Your task to perform on an android device: uninstall "Instagram" Image 0: 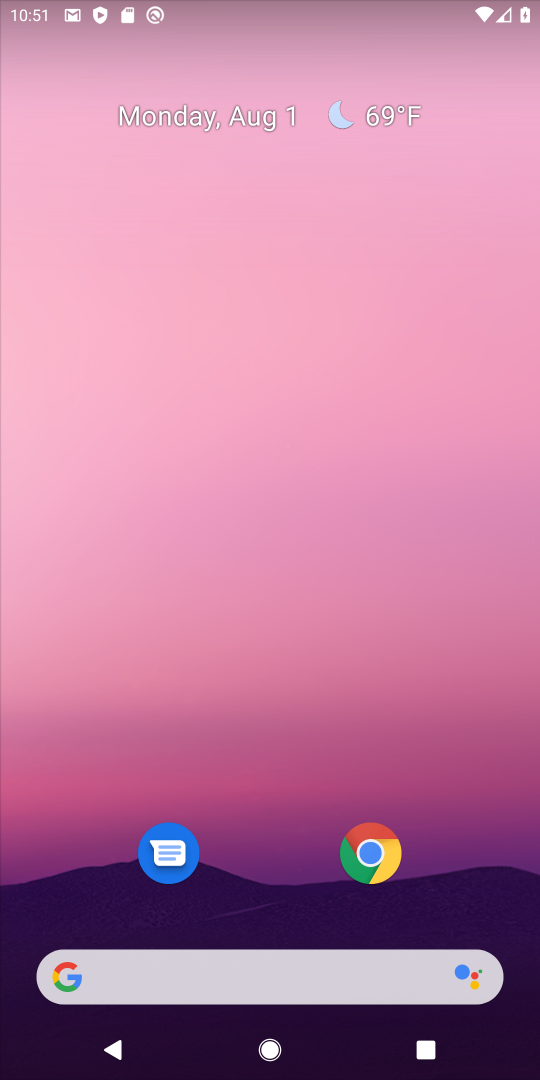
Step 0: press home button
Your task to perform on an android device: uninstall "Instagram" Image 1: 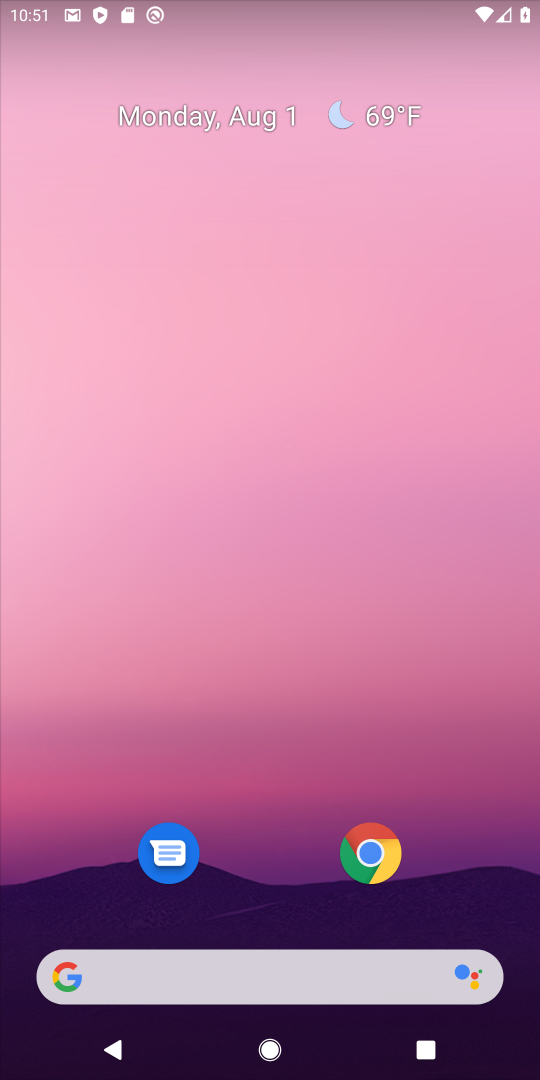
Step 1: drag from (219, 893) to (312, 40)
Your task to perform on an android device: uninstall "Instagram" Image 2: 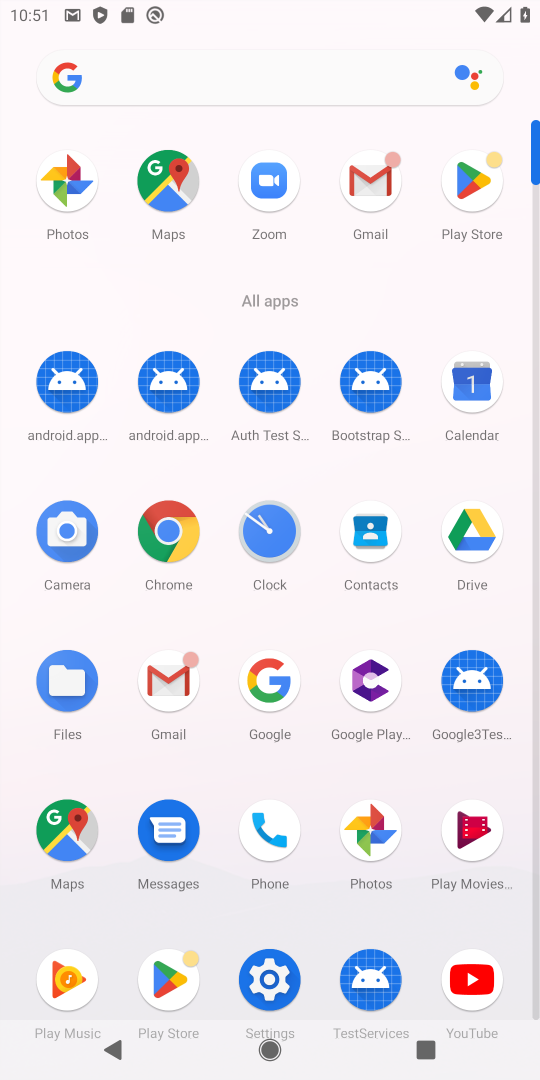
Step 2: click (172, 978)
Your task to perform on an android device: uninstall "Instagram" Image 3: 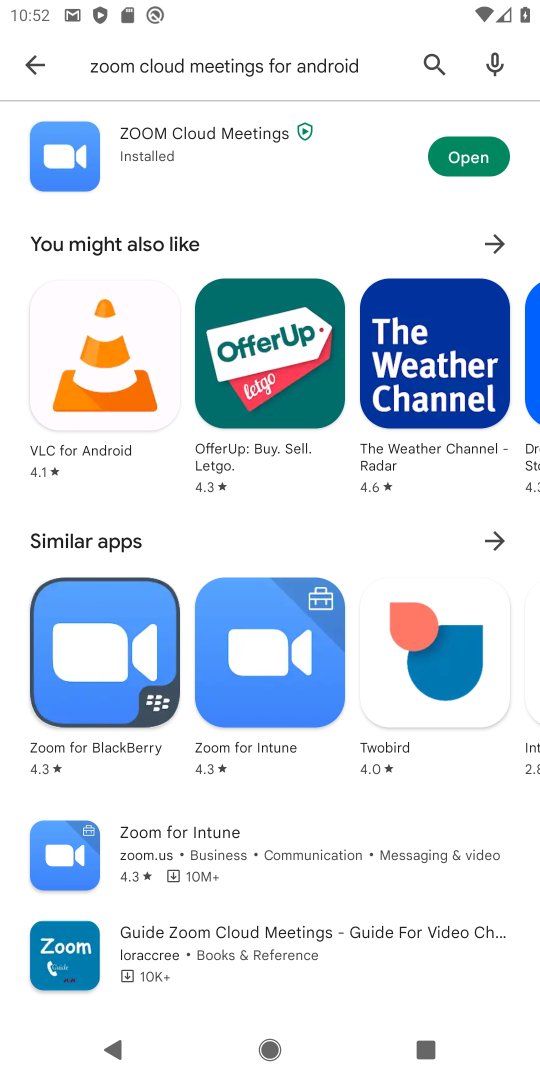
Step 3: click (447, 64)
Your task to perform on an android device: uninstall "Instagram" Image 4: 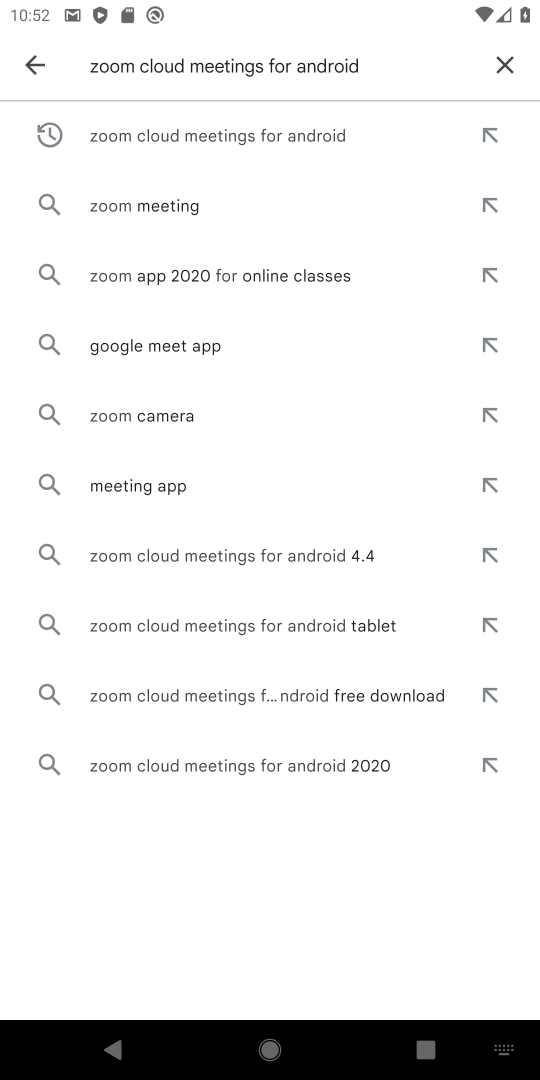
Step 4: click (509, 64)
Your task to perform on an android device: uninstall "Instagram" Image 5: 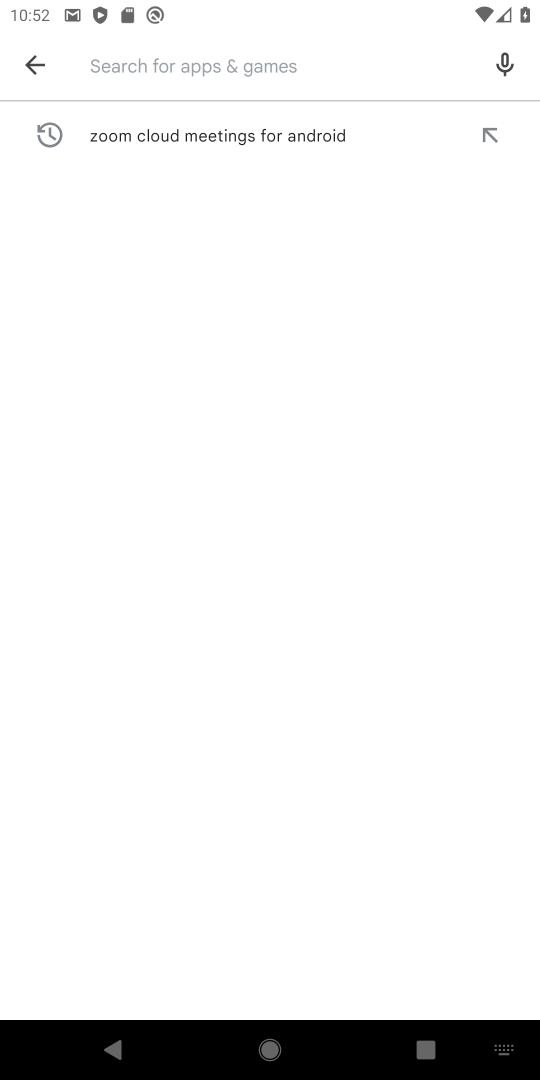
Step 5: type "Instagram"
Your task to perform on an android device: uninstall "Instagram" Image 6: 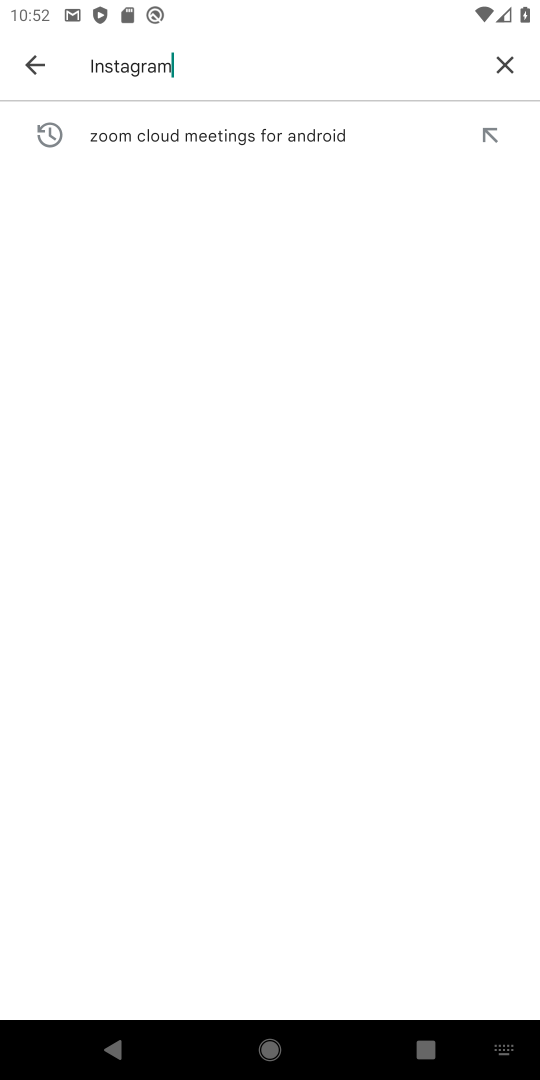
Step 6: type ""
Your task to perform on an android device: uninstall "Instagram" Image 7: 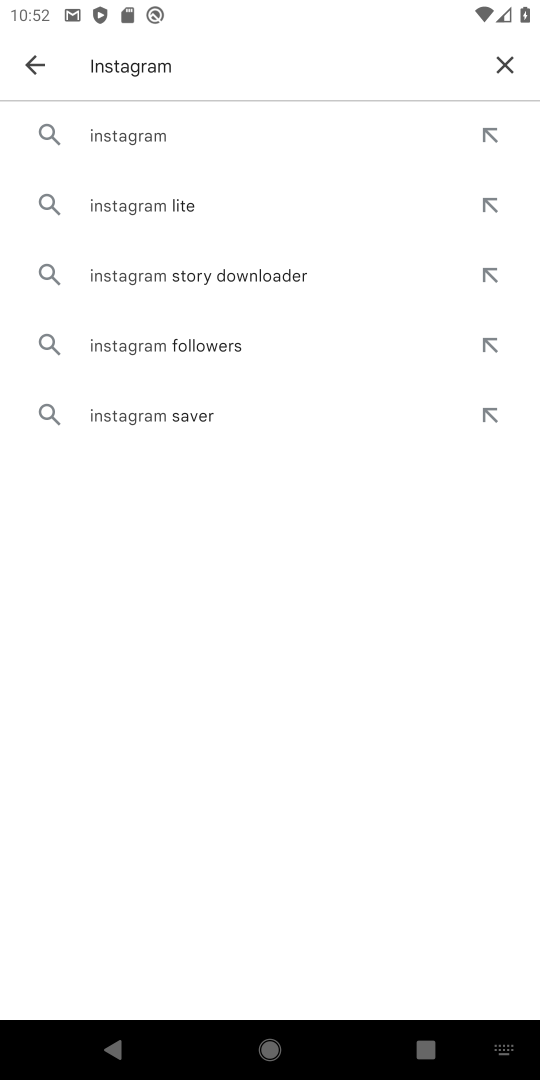
Step 7: click (230, 126)
Your task to perform on an android device: uninstall "Instagram" Image 8: 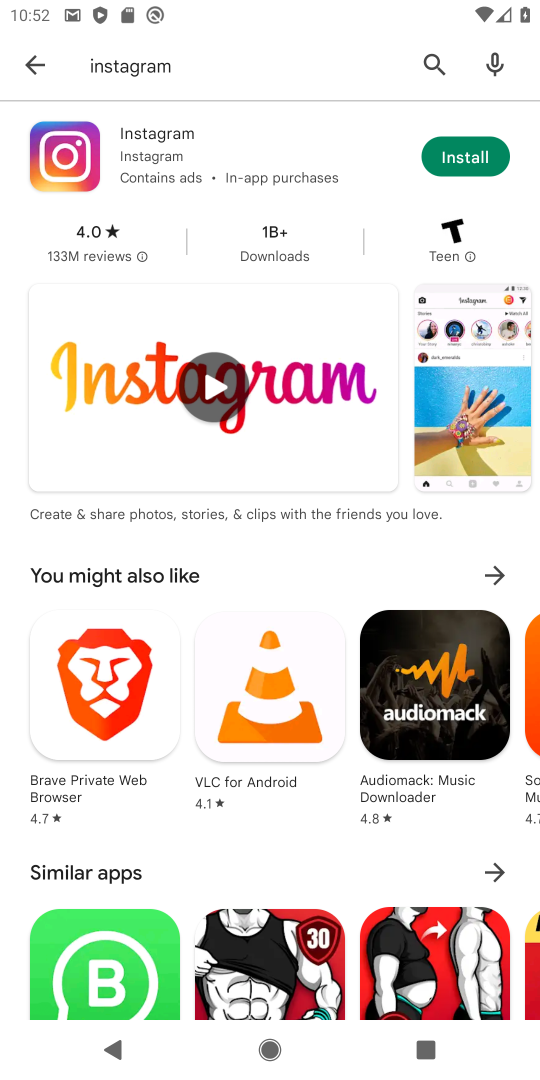
Step 8: task complete